Your task to perform on an android device: turn off priority inbox in the gmail app Image 0: 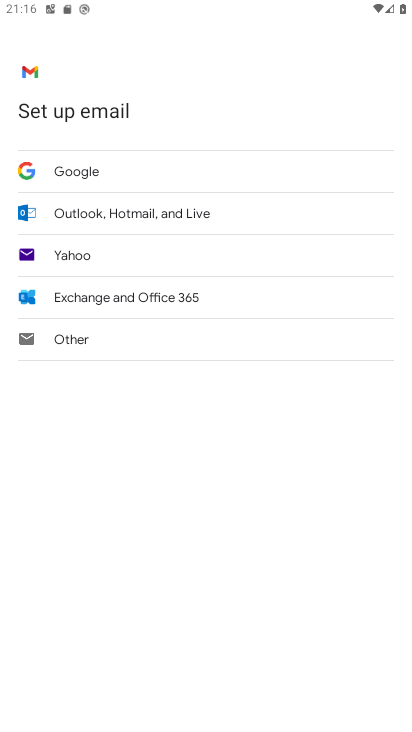
Step 0: press home button
Your task to perform on an android device: turn off priority inbox in the gmail app Image 1: 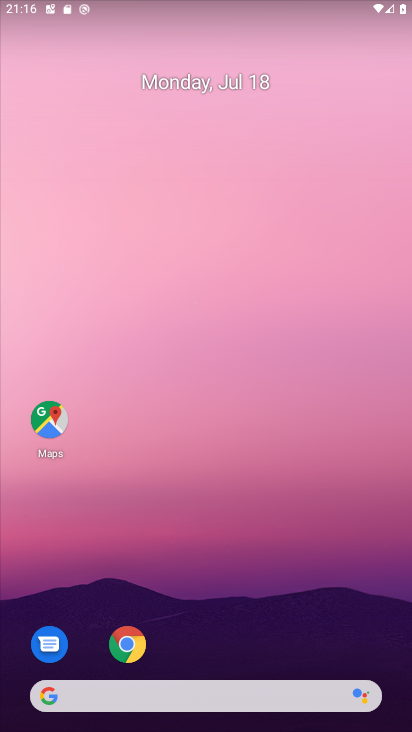
Step 1: drag from (209, 649) to (239, 7)
Your task to perform on an android device: turn off priority inbox in the gmail app Image 2: 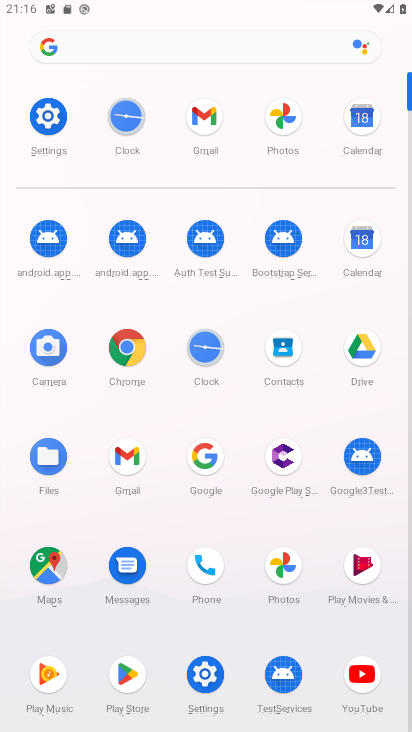
Step 2: click (212, 115)
Your task to perform on an android device: turn off priority inbox in the gmail app Image 3: 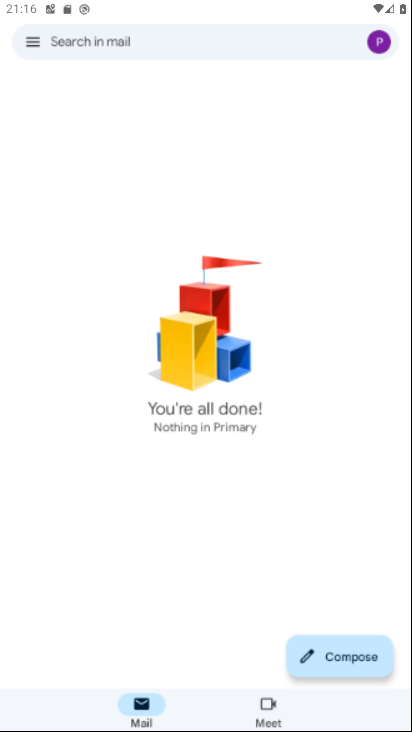
Step 3: task complete